Your task to perform on an android device: search for starred emails in the gmail app Image 0: 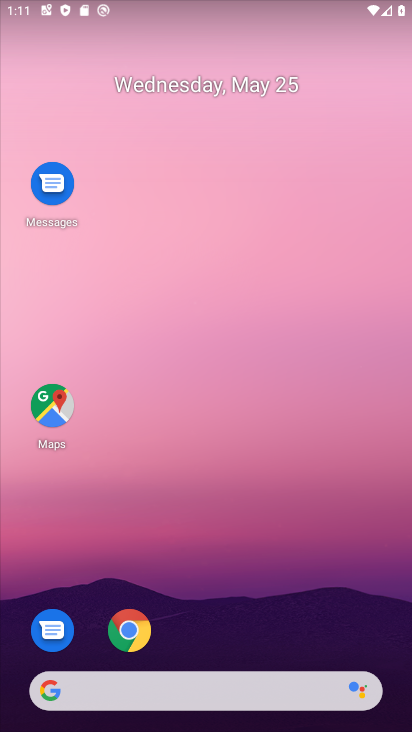
Step 0: drag from (283, 650) to (55, 117)
Your task to perform on an android device: search for starred emails in the gmail app Image 1: 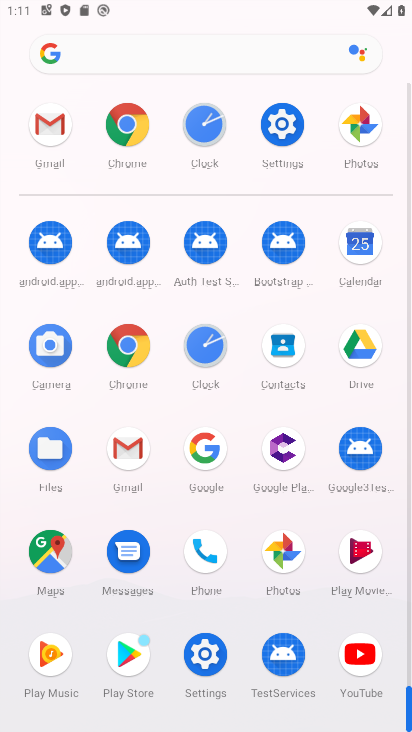
Step 1: click (135, 444)
Your task to perform on an android device: search for starred emails in the gmail app Image 2: 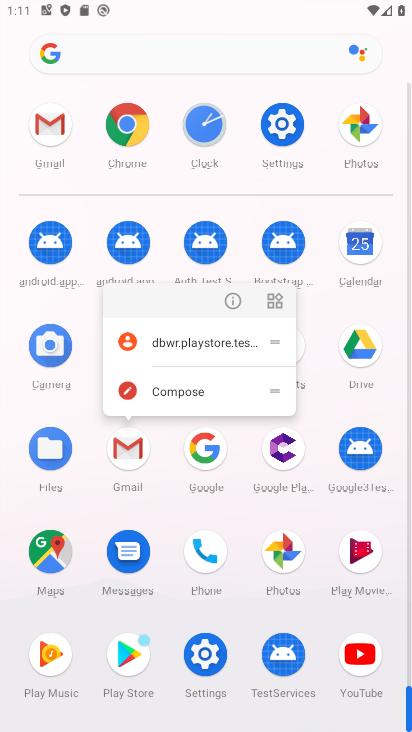
Step 2: click (130, 451)
Your task to perform on an android device: search for starred emails in the gmail app Image 3: 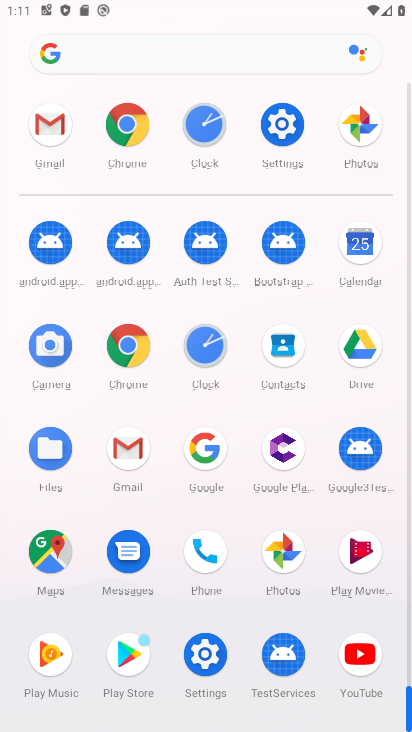
Step 3: click (135, 442)
Your task to perform on an android device: search for starred emails in the gmail app Image 4: 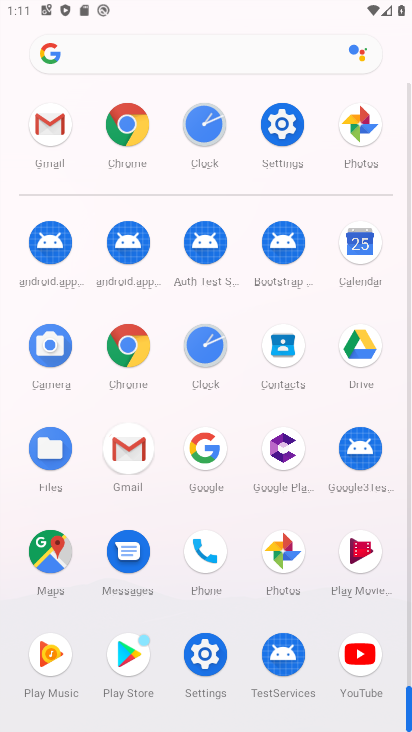
Step 4: click (132, 444)
Your task to perform on an android device: search for starred emails in the gmail app Image 5: 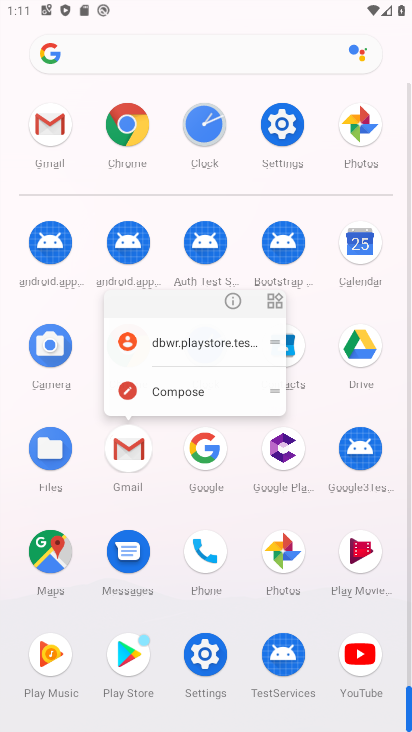
Step 5: click (128, 447)
Your task to perform on an android device: search for starred emails in the gmail app Image 6: 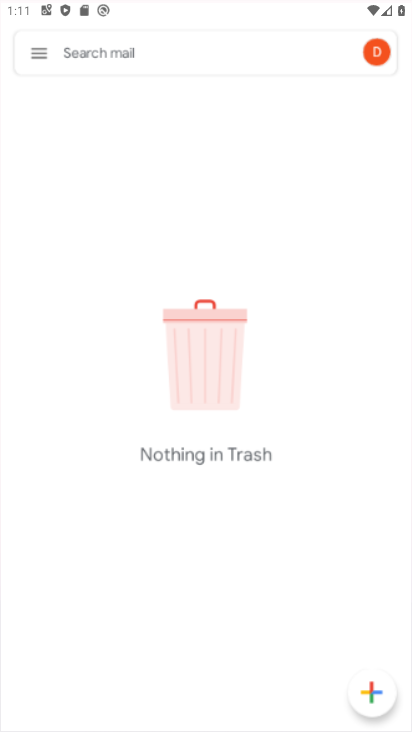
Step 6: click (127, 448)
Your task to perform on an android device: search for starred emails in the gmail app Image 7: 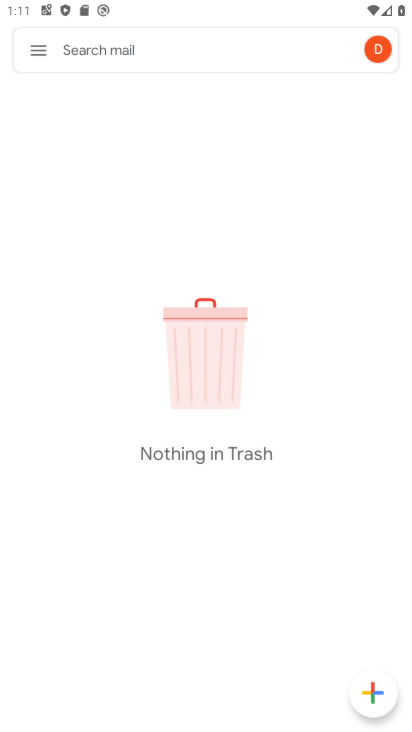
Step 7: click (126, 448)
Your task to perform on an android device: search for starred emails in the gmail app Image 8: 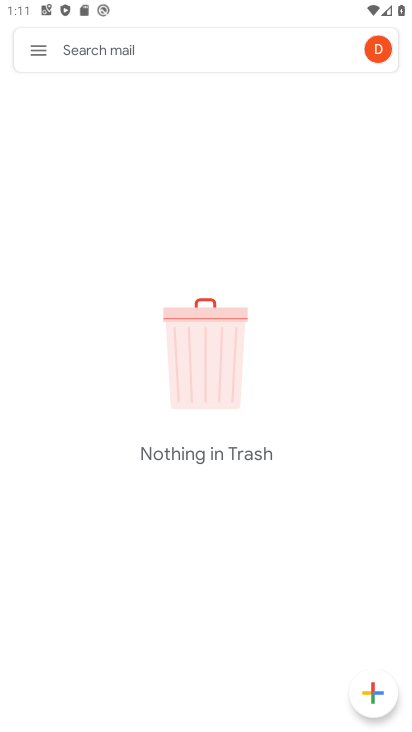
Step 8: click (38, 57)
Your task to perform on an android device: search for starred emails in the gmail app Image 9: 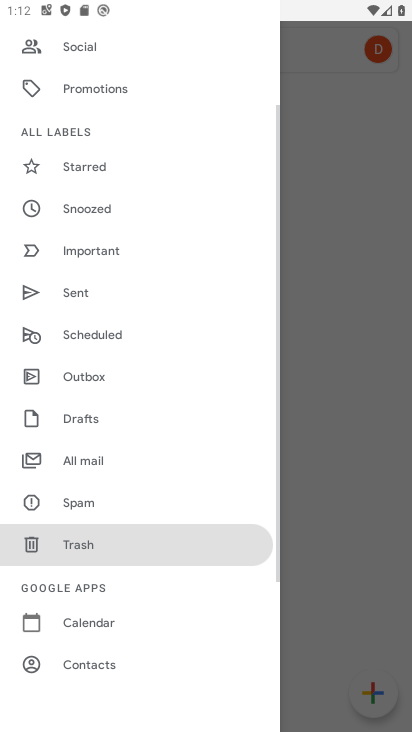
Step 9: click (35, 52)
Your task to perform on an android device: search for starred emails in the gmail app Image 10: 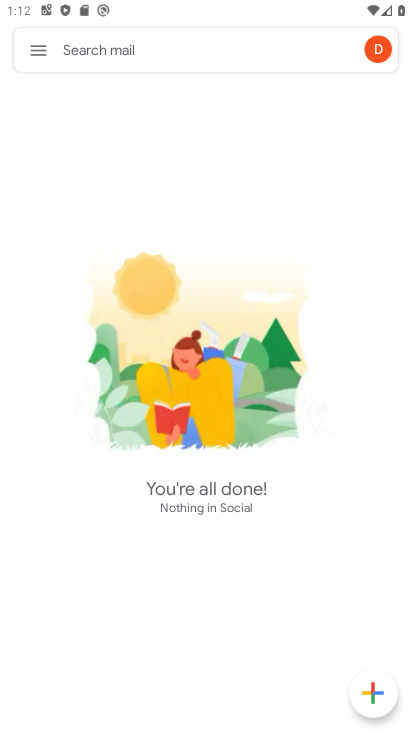
Step 10: click (45, 46)
Your task to perform on an android device: search for starred emails in the gmail app Image 11: 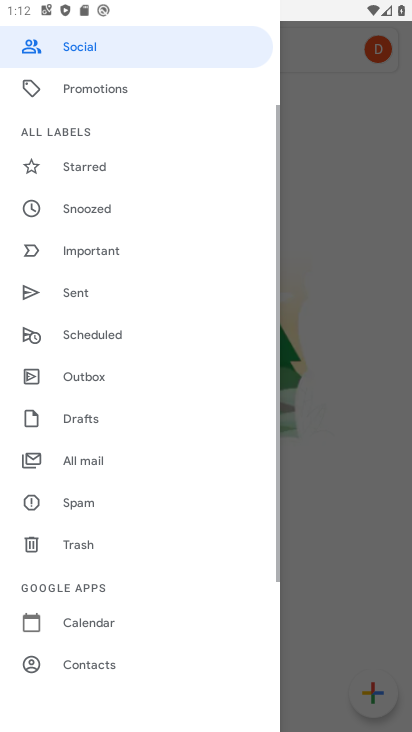
Step 11: click (96, 158)
Your task to perform on an android device: search for starred emails in the gmail app Image 12: 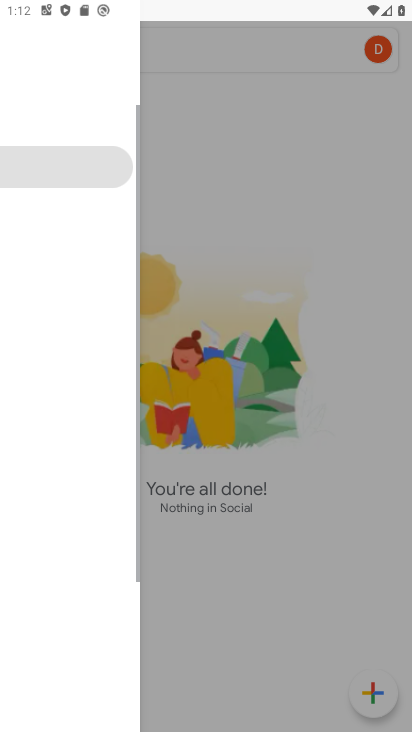
Step 12: click (96, 158)
Your task to perform on an android device: search for starred emails in the gmail app Image 13: 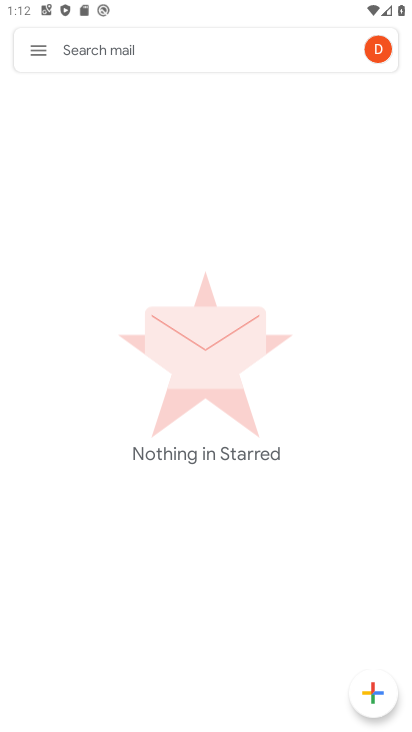
Step 13: task complete